Your task to perform on an android device: turn off data saver in the chrome app Image 0: 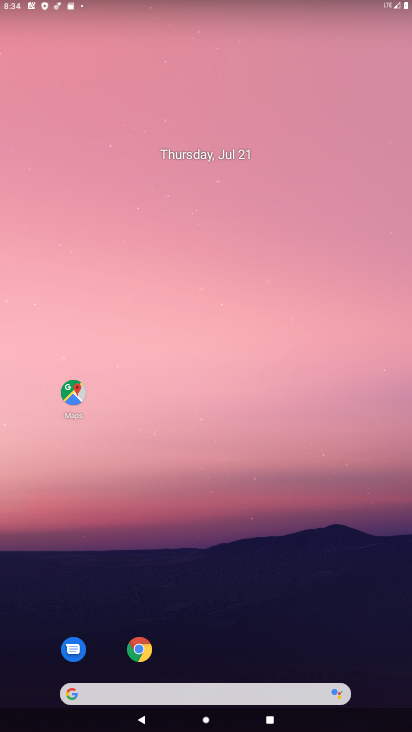
Step 0: drag from (196, 618) to (180, 24)
Your task to perform on an android device: turn off data saver in the chrome app Image 1: 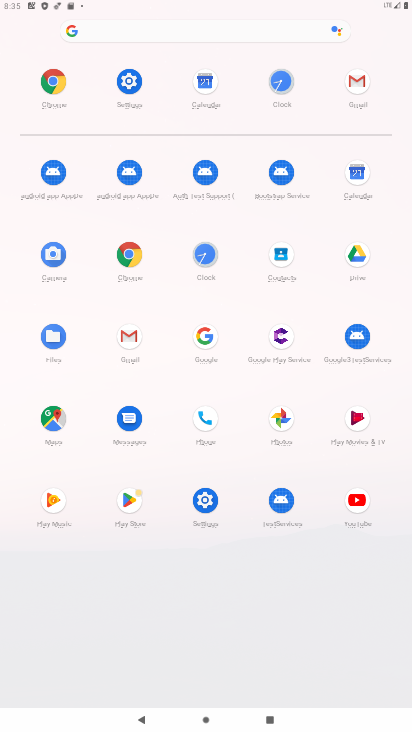
Step 1: click (209, 514)
Your task to perform on an android device: turn off data saver in the chrome app Image 2: 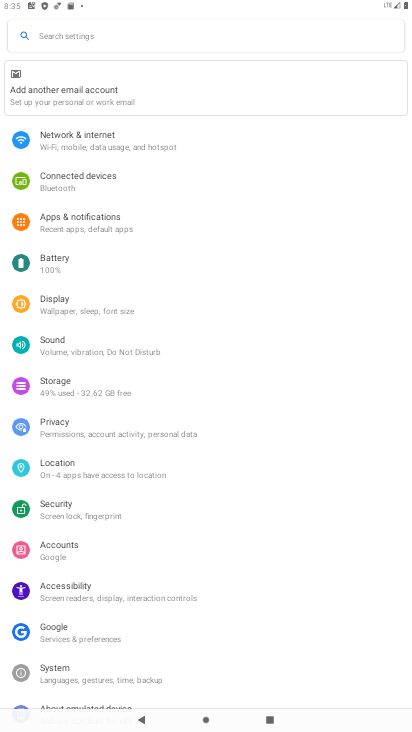
Step 2: click (87, 138)
Your task to perform on an android device: turn off data saver in the chrome app Image 3: 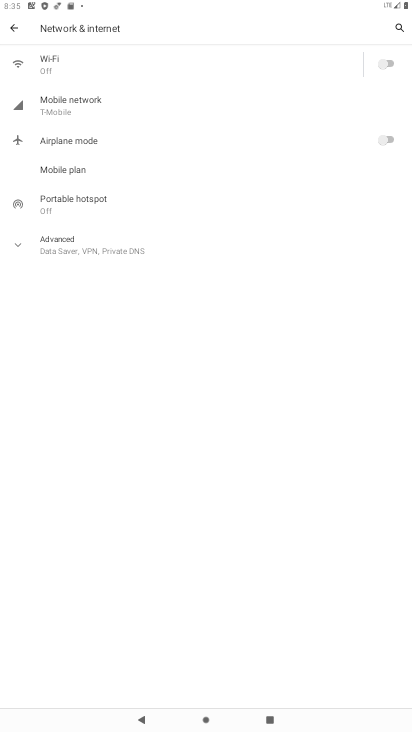
Step 3: click (76, 104)
Your task to perform on an android device: turn off data saver in the chrome app Image 4: 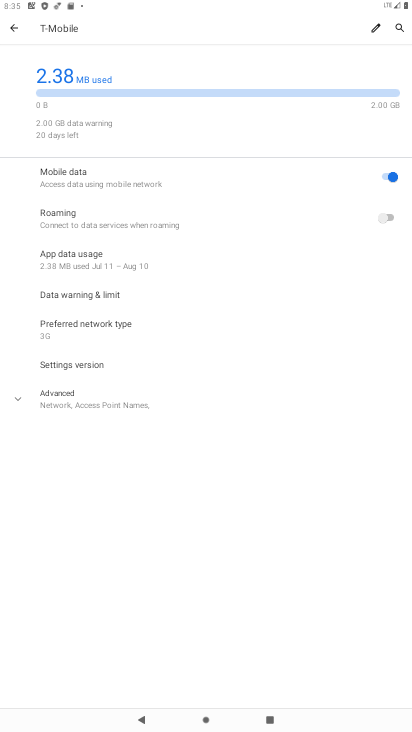
Step 4: press home button
Your task to perform on an android device: turn off data saver in the chrome app Image 5: 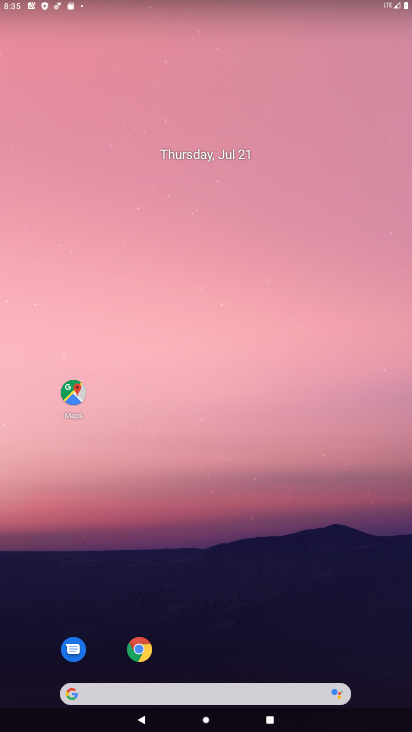
Step 5: click (130, 647)
Your task to perform on an android device: turn off data saver in the chrome app Image 6: 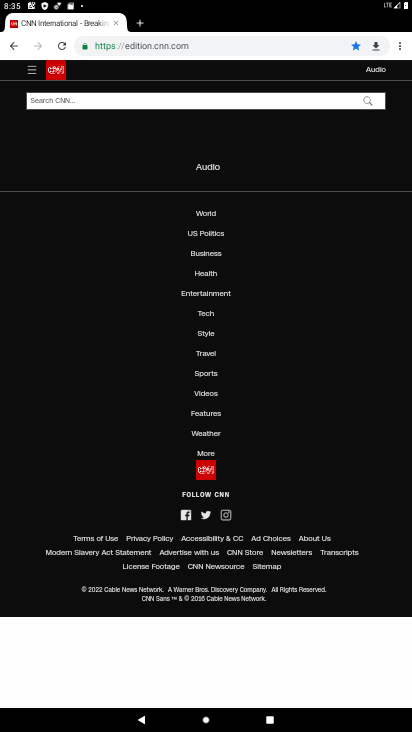
Step 6: click (401, 45)
Your task to perform on an android device: turn off data saver in the chrome app Image 7: 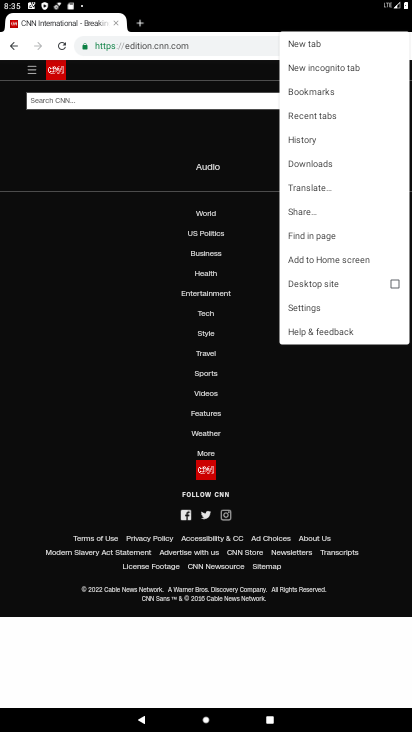
Step 7: click (310, 309)
Your task to perform on an android device: turn off data saver in the chrome app Image 8: 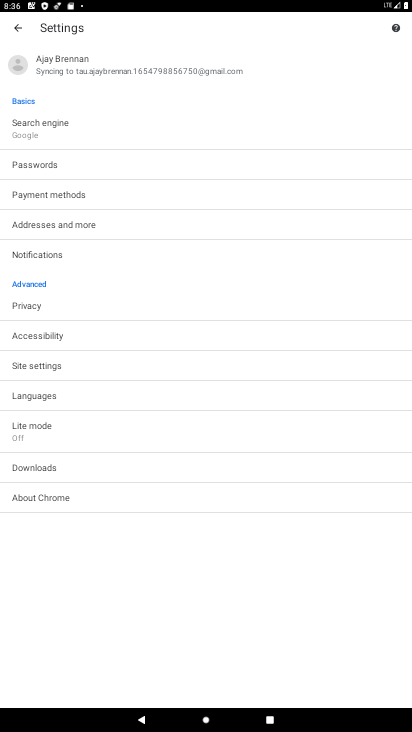
Step 8: click (52, 436)
Your task to perform on an android device: turn off data saver in the chrome app Image 9: 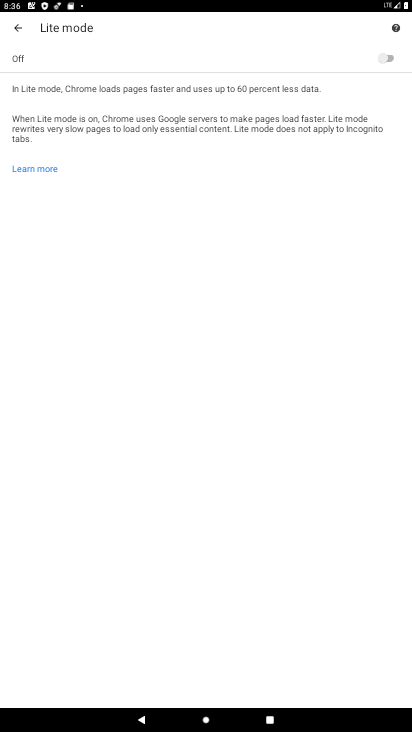
Step 9: task complete